Your task to perform on an android device: star an email in the gmail app Image 0: 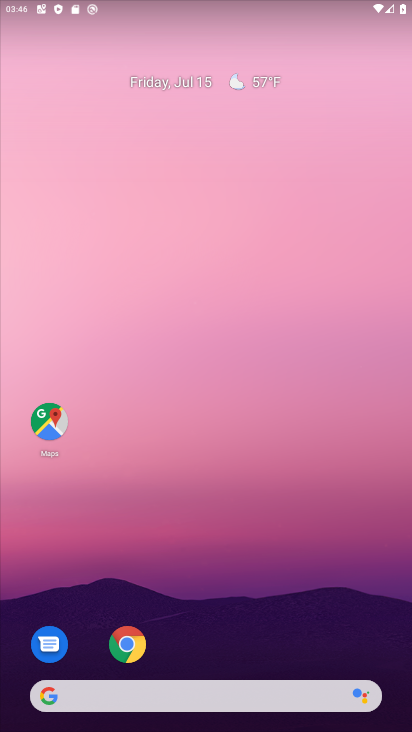
Step 0: drag from (205, 664) to (197, 35)
Your task to perform on an android device: star an email in the gmail app Image 1: 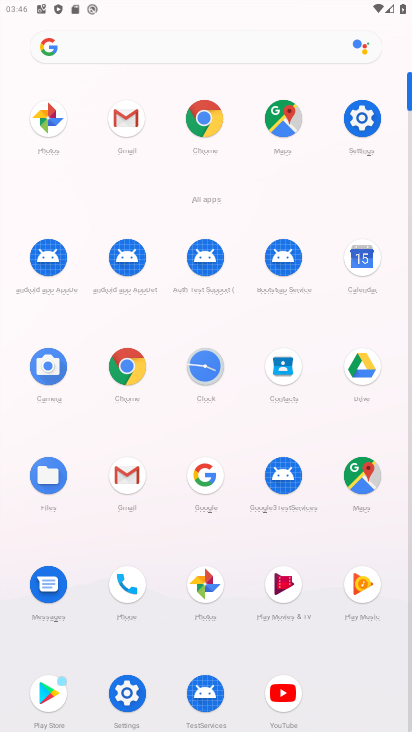
Step 1: click (123, 129)
Your task to perform on an android device: star an email in the gmail app Image 2: 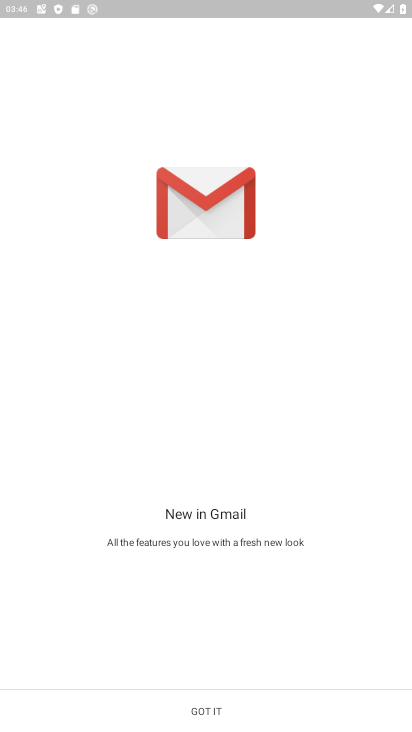
Step 2: click (224, 700)
Your task to perform on an android device: star an email in the gmail app Image 3: 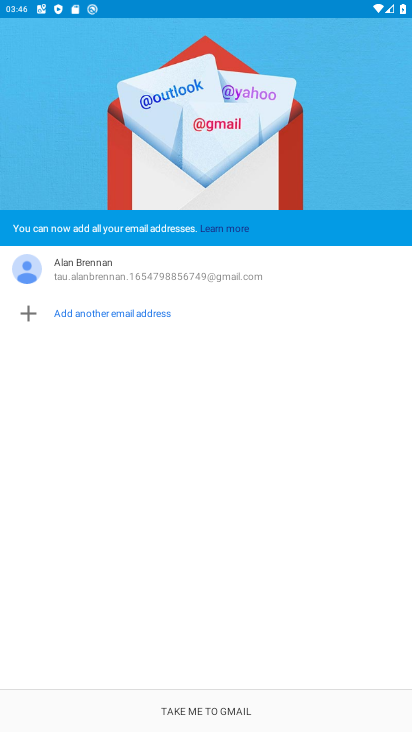
Step 3: click (224, 700)
Your task to perform on an android device: star an email in the gmail app Image 4: 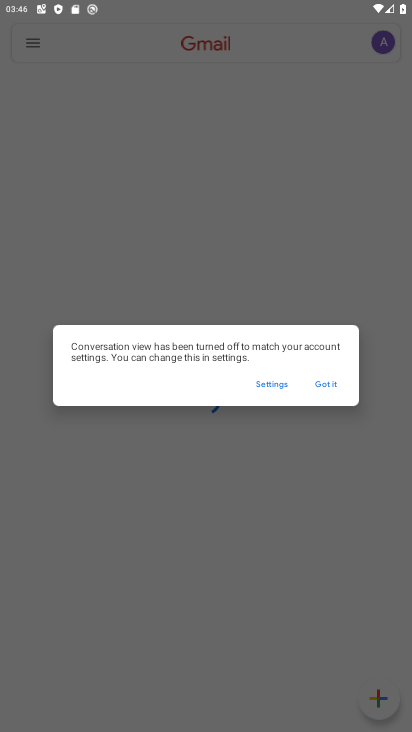
Step 4: click (331, 386)
Your task to perform on an android device: star an email in the gmail app Image 5: 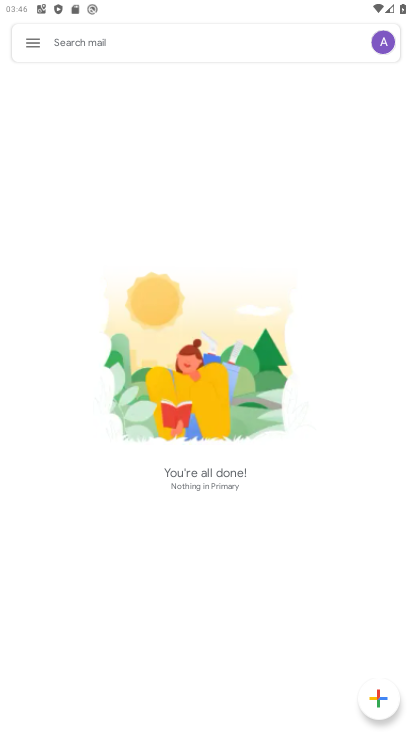
Step 5: task complete